Your task to perform on an android device: Go to Yahoo.com Image 0: 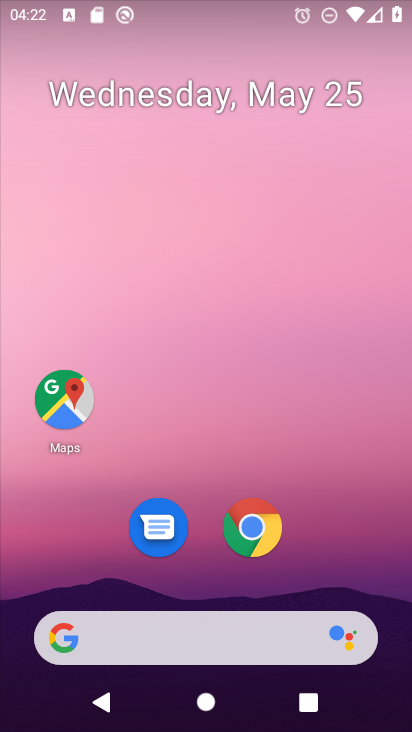
Step 0: drag from (271, 523) to (405, 135)
Your task to perform on an android device: Go to Yahoo.com Image 1: 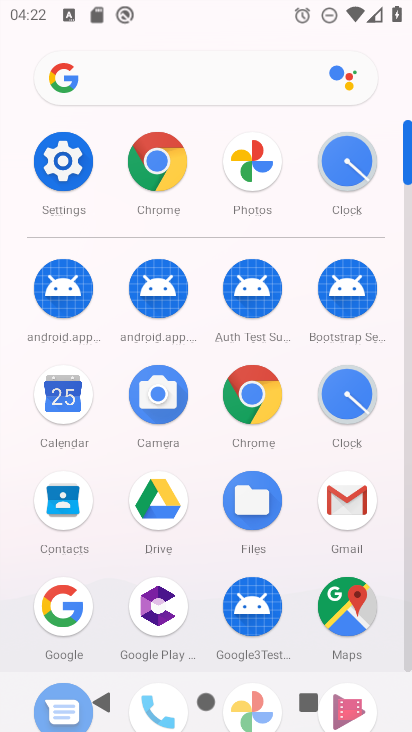
Step 1: click (249, 398)
Your task to perform on an android device: Go to Yahoo.com Image 2: 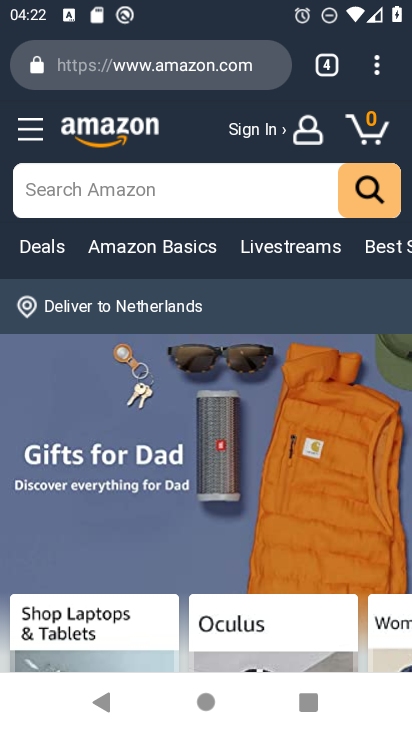
Step 2: drag from (385, 65) to (247, 151)
Your task to perform on an android device: Go to Yahoo.com Image 3: 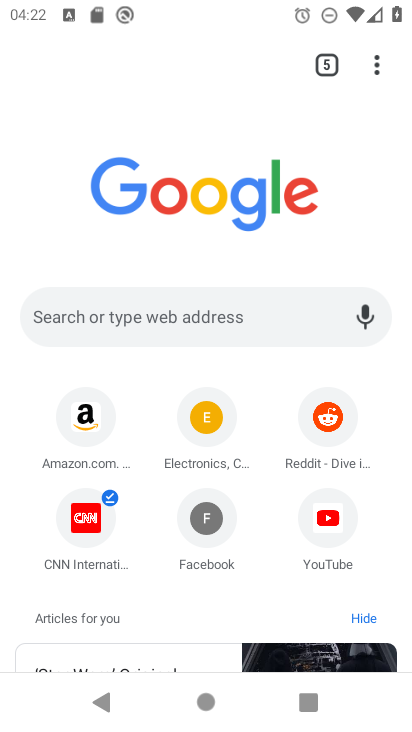
Step 3: click (222, 321)
Your task to perform on an android device: Go to Yahoo.com Image 4: 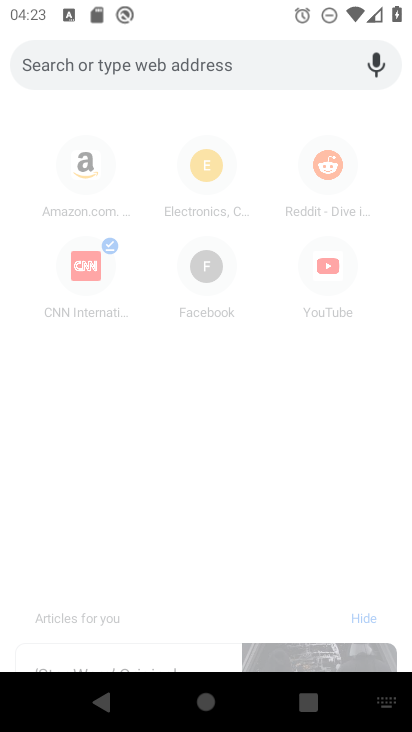
Step 4: type "yahoo.com"
Your task to perform on an android device: Go to Yahoo.com Image 5: 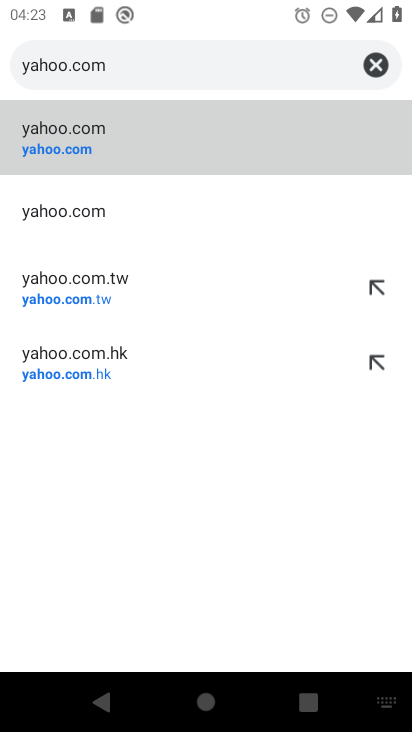
Step 5: click (252, 149)
Your task to perform on an android device: Go to Yahoo.com Image 6: 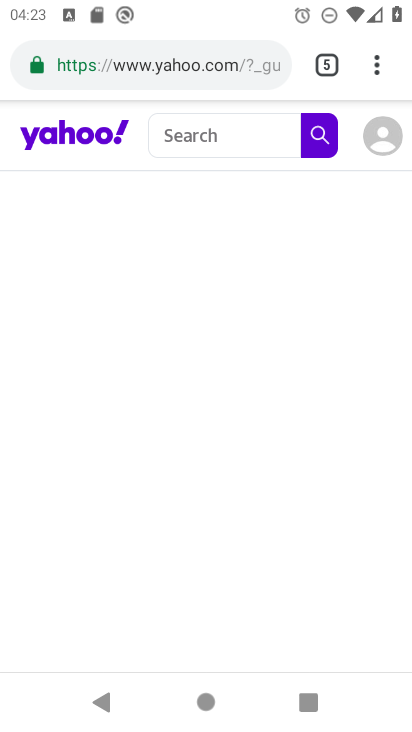
Step 6: task complete